Your task to perform on an android device: turn on wifi Image 0: 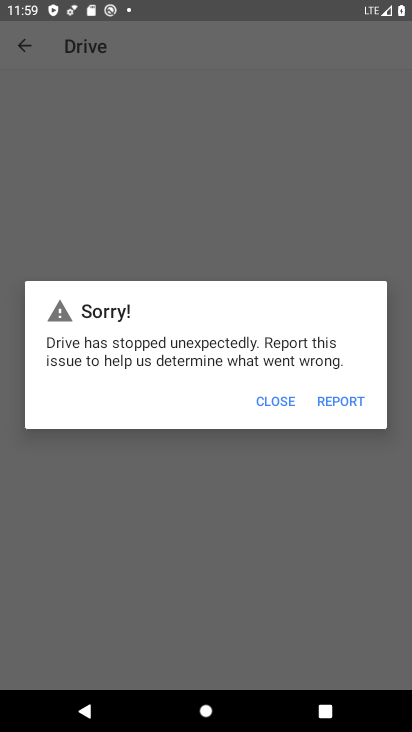
Step 0: press home button
Your task to perform on an android device: turn on wifi Image 1: 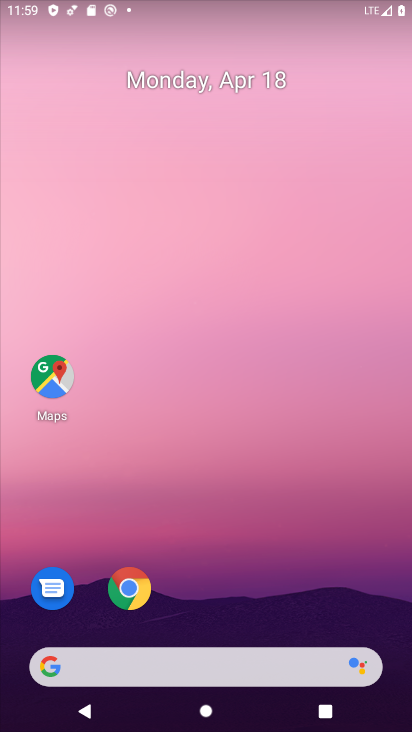
Step 1: drag from (368, 602) to (354, 302)
Your task to perform on an android device: turn on wifi Image 2: 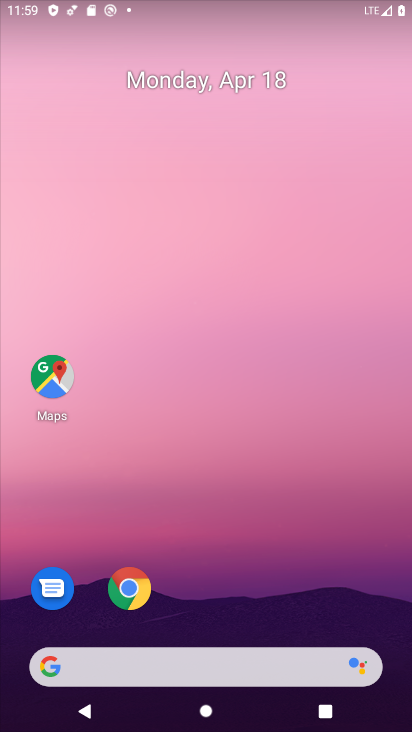
Step 2: drag from (367, 609) to (410, 185)
Your task to perform on an android device: turn on wifi Image 3: 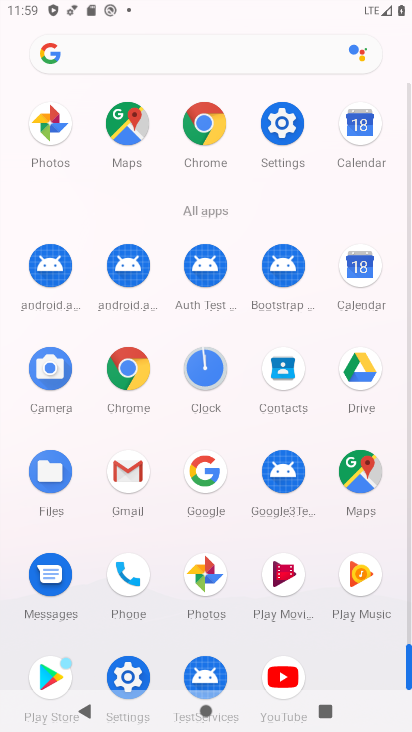
Step 3: click (130, 674)
Your task to perform on an android device: turn on wifi Image 4: 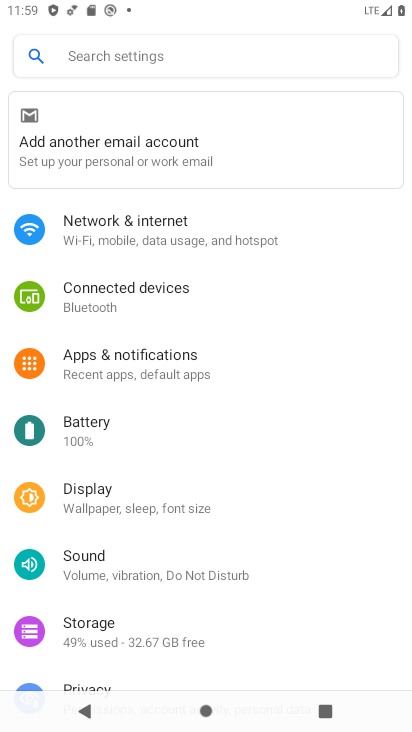
Step 4: click (127, 223)
Your task to perform on an android device: turn on wifi Image 5: 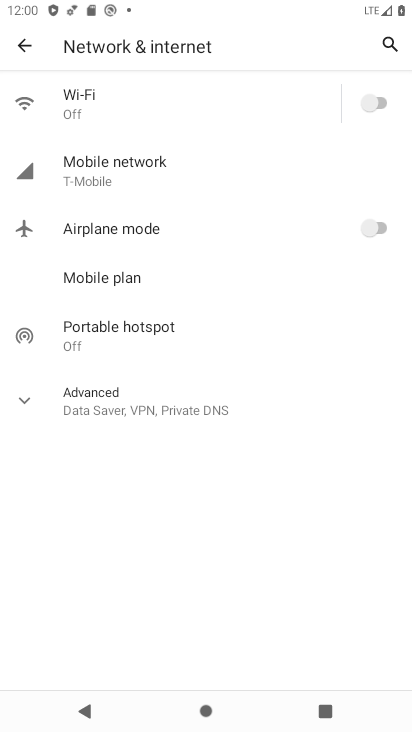
Step 5: click (376, 100)
Your task to perform on an android device: turn on wifi Image 6: 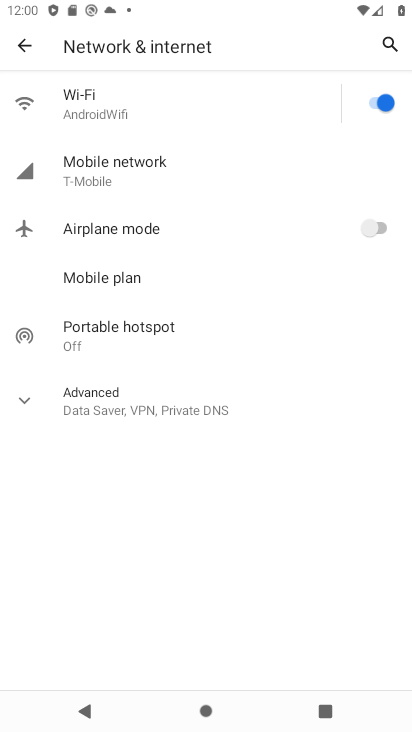
Step 6: task complete